Your task to perform on an android device: turn off wifi Image 0: 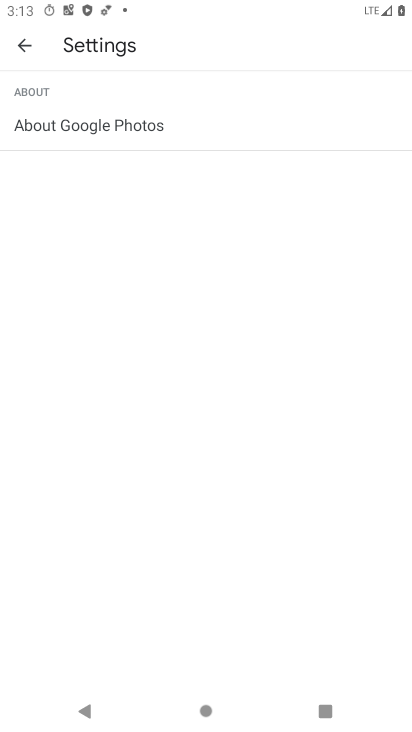
Step 0: press home button
Your task to perform on an android device: turn off wifi Image 1: 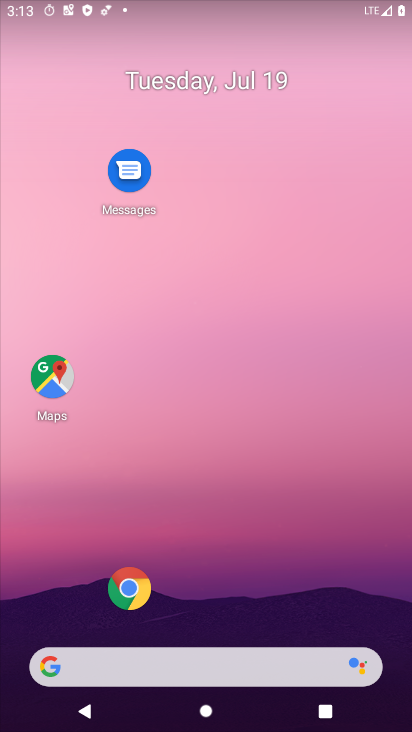
Step 1: drag from (99, 615) to (356, 19)
Your task to perform on an android device: turn off wifi Image 2: 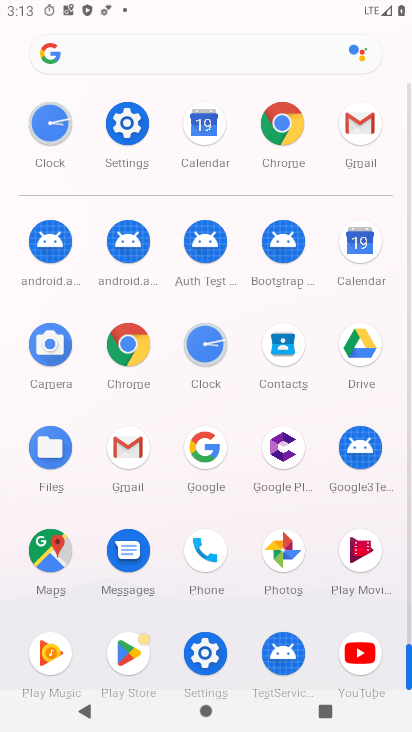
Step 2: click (191, 662)
Your task to perform on an android device: turn off wifi Image 3: 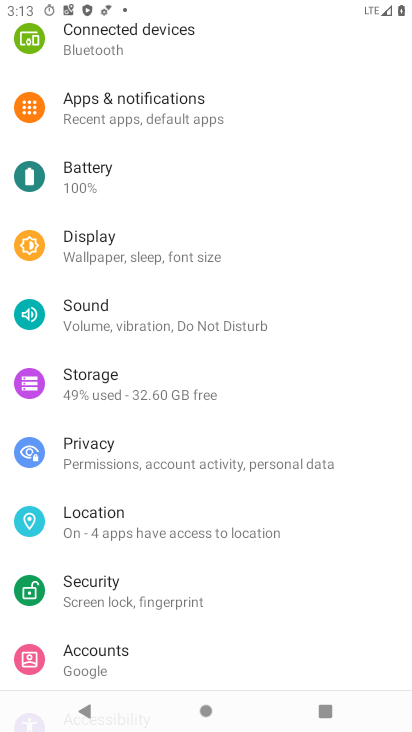
Step 3: drag from (256, 113) to (266, 483)
Your task to perform on an android device: turn off wifi Image 4: 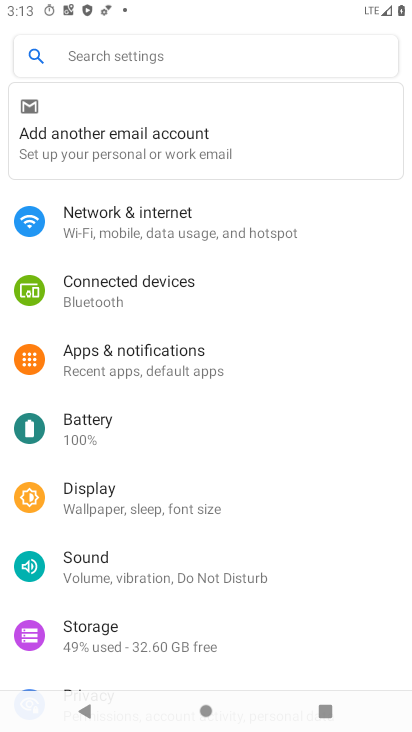
Step 4: click (189, 235)
Your task to perform on an android device: turn off wifi Image 5: 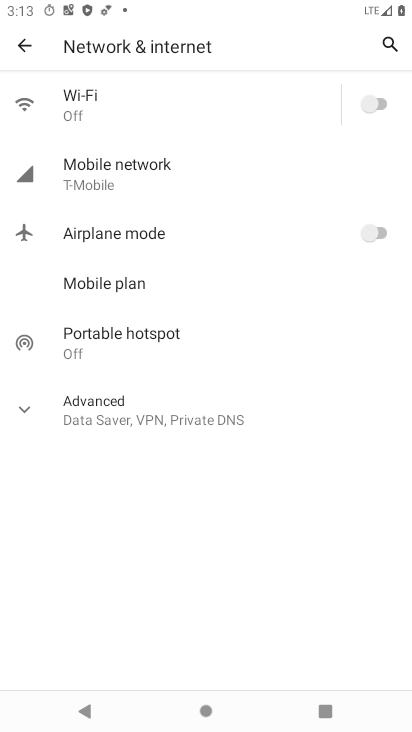
Step 5: click (381, 111)
Your task to perform on an android device: turn off wifi Image 6: 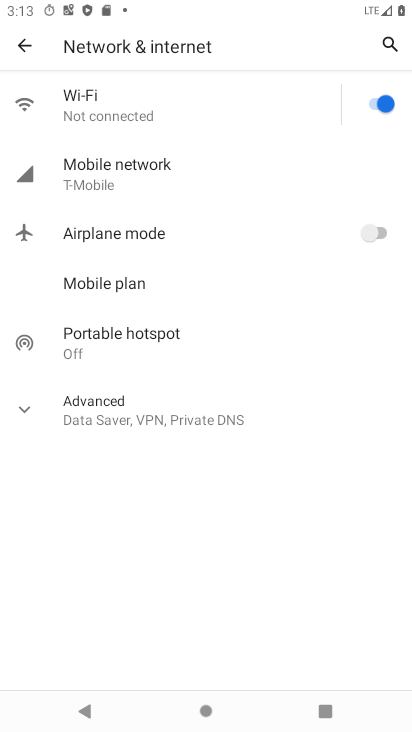
Step 6: click (381, 110)
Your task to perform on an android device: turn off wifi Image 7: 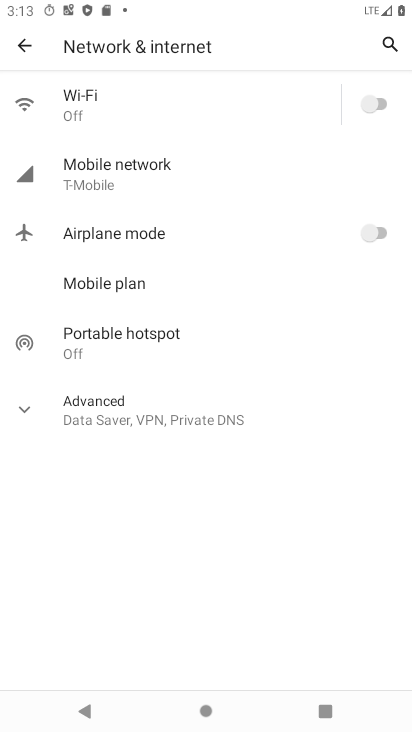
Step 7: task complete